Your task to perform on an android device: Open the map Image 0: 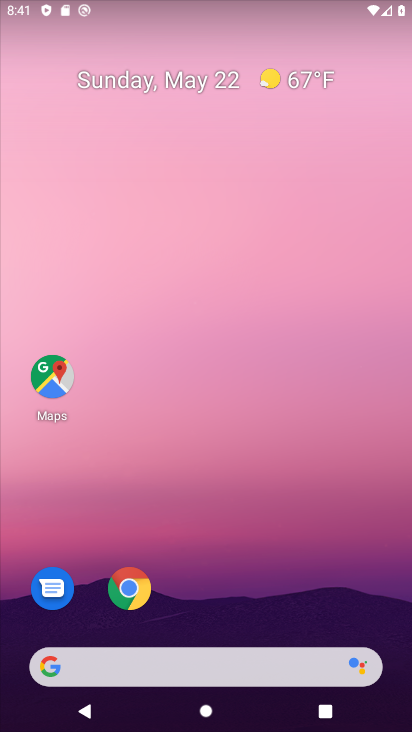
Step 0: click (47, 397)
Your task to perform on an android device: Open the map Image 1: 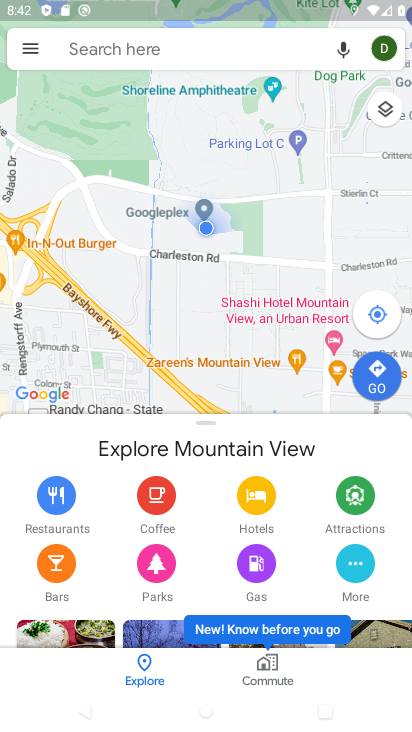
Step 1: task complete